Your task to perform on an android device: Search for "energizer triple a" on amazon, select the first entry, and add it to the cart. Image 0: 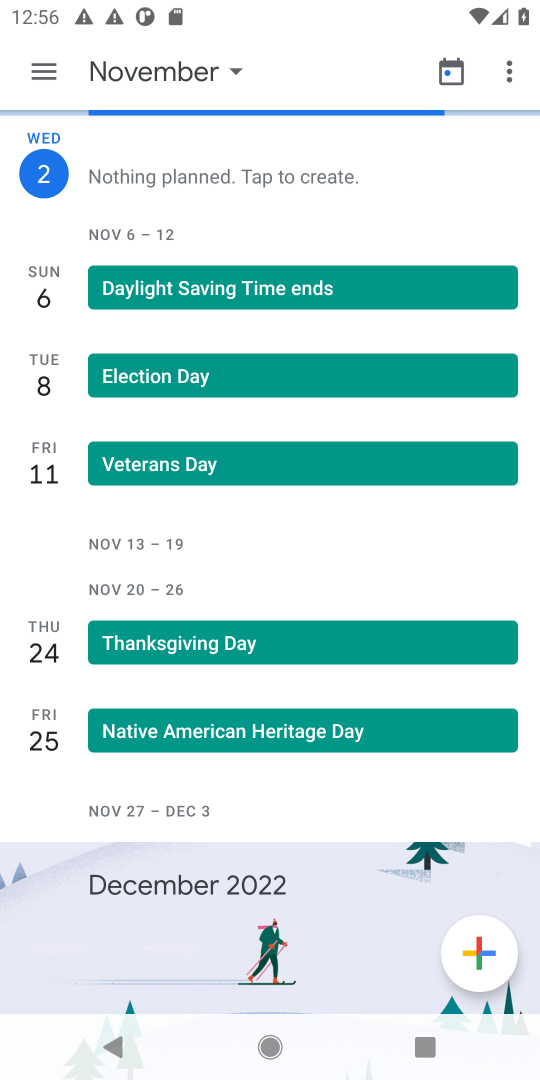
Step 0: press home button
Your task to perform on an android device: Search for "energizer triple a" on amazon, select the first entry, and add it to the cart. Image 1: 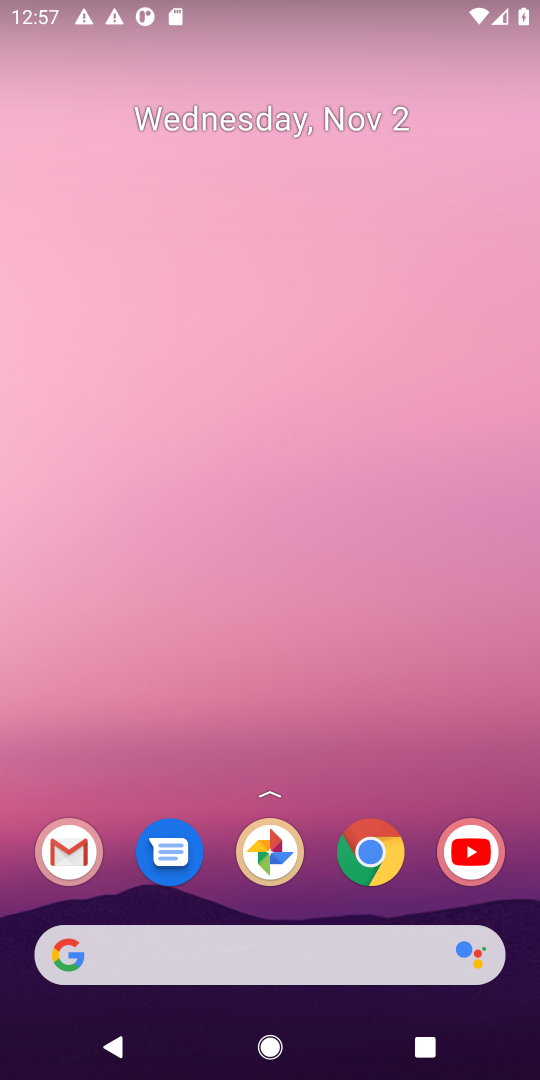
Step 1: click (76, 962)
Your task to perform on an android device: Search for "energizer triple a" on amazon, select the first entry, and add it to the cart. Image 2: 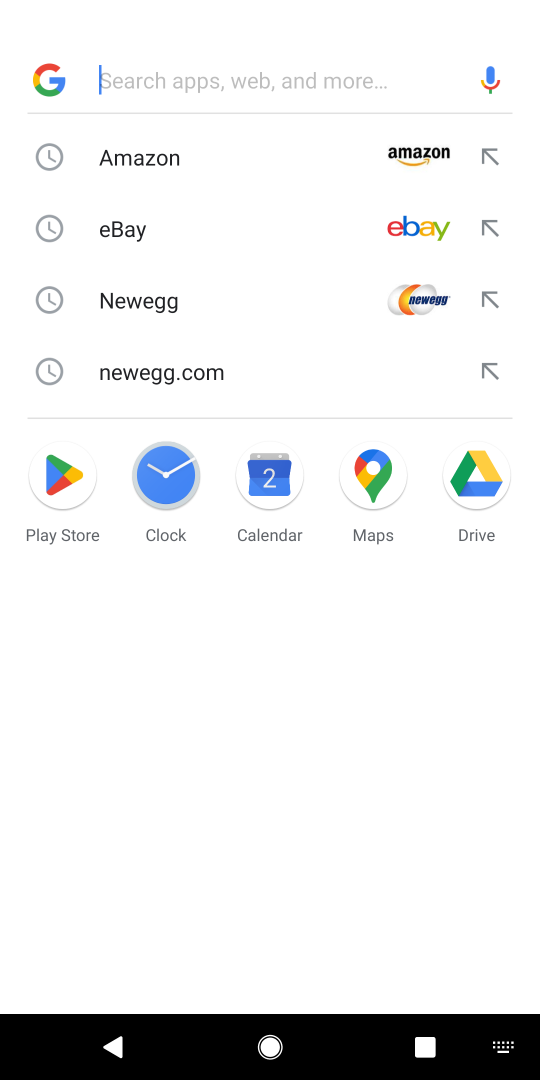
Step 2: click (106, 156)
Your task to perform on an android device: Search for "energizer triple a" on amazon, select the first entry, and add it to the cart. Image 3: 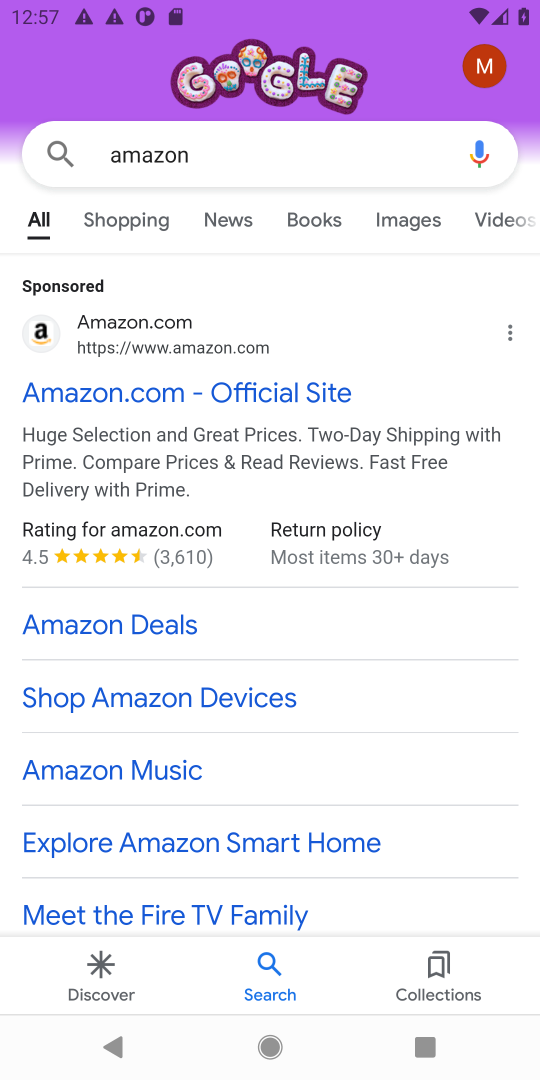
Step 3: click (176, 387)
Your task to perform on an android device: Search for "energizer triple a" on amazon, select the first entry, and add it to the cart. Image 4: 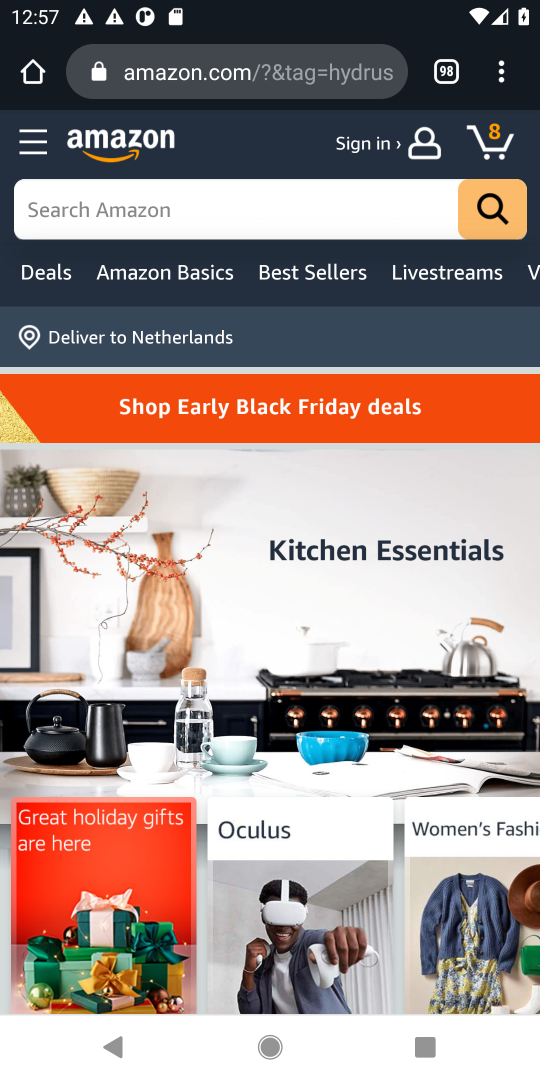
Step 4: type "energizer triple a"
Your task to perform on an android device: Search for "energizer triple a" on amazon, select the first entry, and add it to the cart. Image 5: 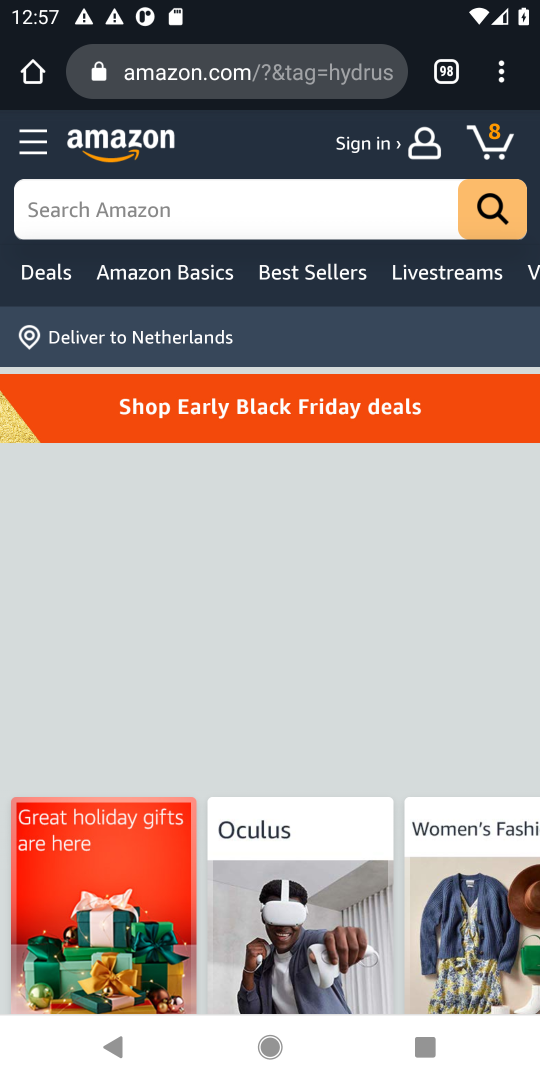
Step 5: click (40, 200)
Your task to perform on an android device: Search for "energizer triple a" on amazon, select the first entry, and add it to the cart. Image 6: 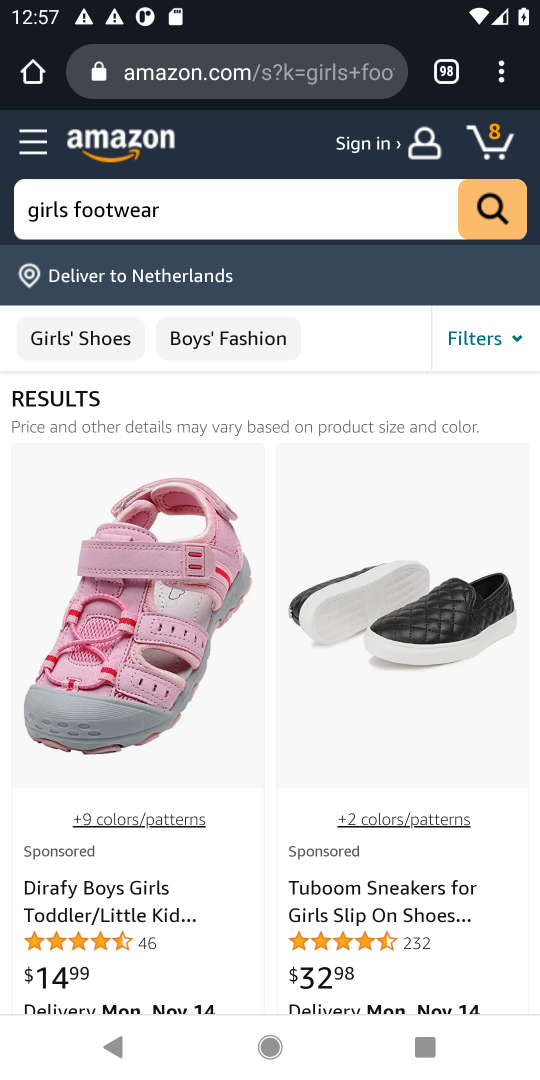
Step 6: click (401, 216)
Your task to perform on an android device: Search for "energizer triple a" on amazon, select the first entry, and add it to the cart. Image 7: 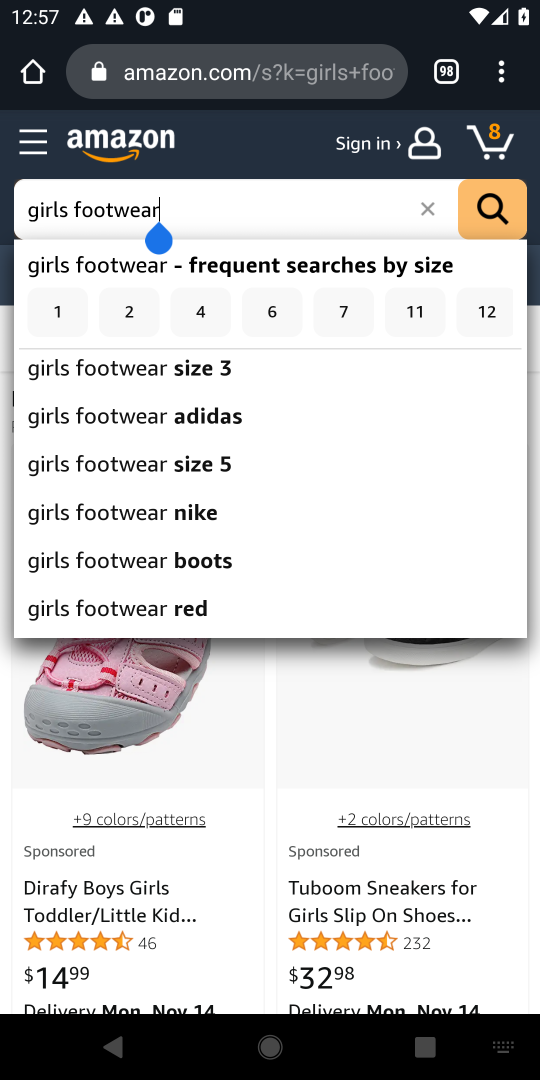
Step 7: drag from (152, 244) to (33, 219)
Your task to perform on an android device: Search for "energizer triple a" on amazon, select the first entry, and add it to the cart. Image 8: 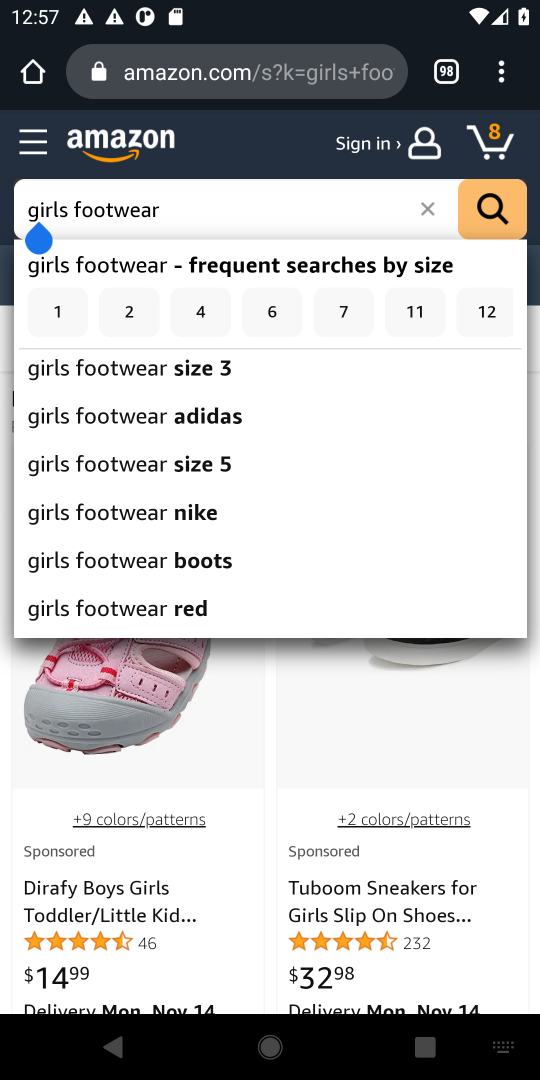
Step 8: click (419, 207)
Your task to perform on an android device: Search for "energizer triple a" on amazon, select the first entry, and add it to the cart. Image 9: 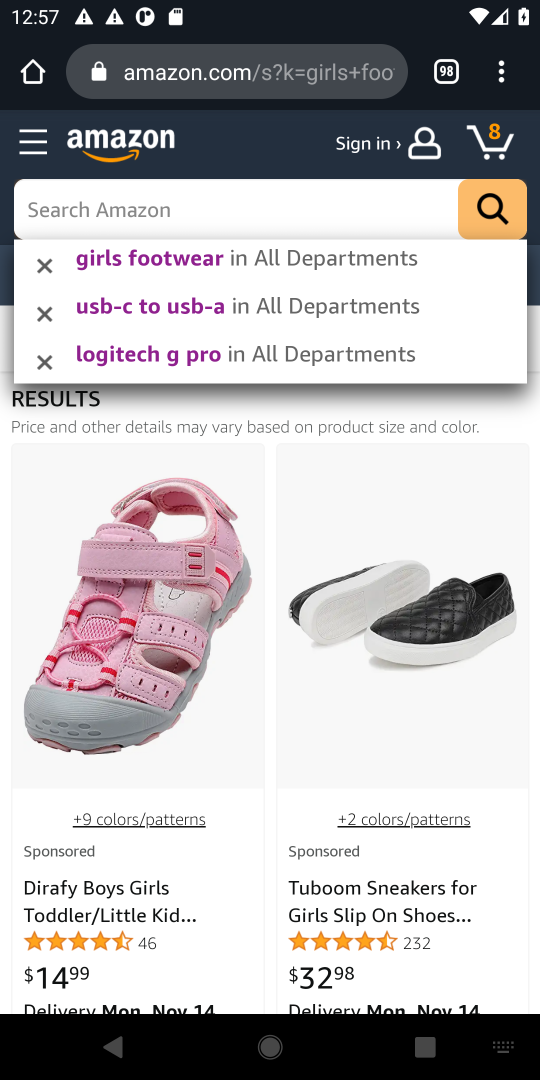
Step 9: type "energizer triple a"
Your task to perform on an android device: Search for "energizer triple a" on amazon, select the first entry, and add it to the cart. Image 10: 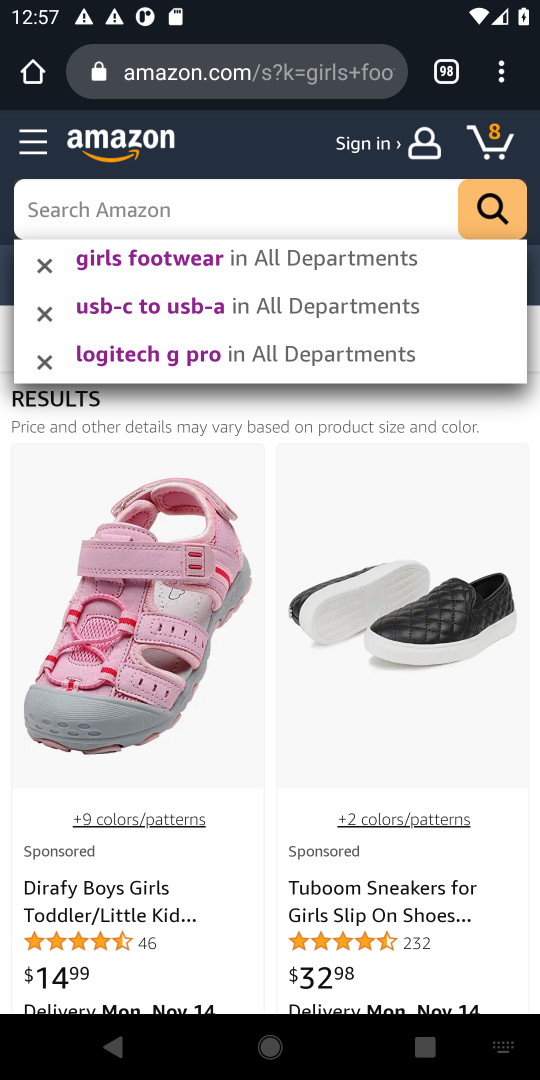
Step 10: click (140, 204)
Your task to perform on an android device: Search for "energizer triple a" on amazon, select the first entry, and add it to the cart. Image 11: 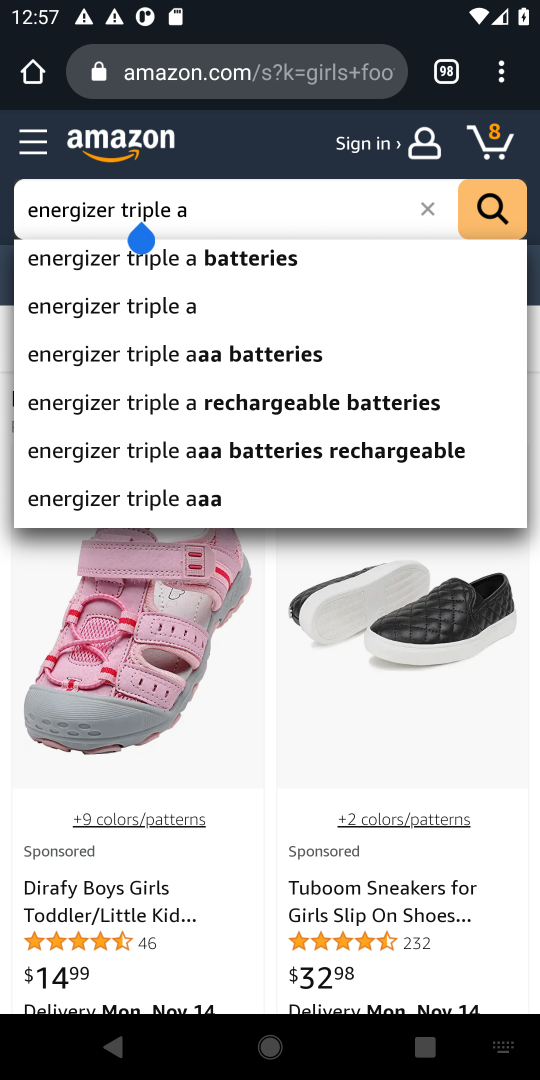
Step 11: press enter
Your task to perform on an android device: Search for "energizer triple a" on amazon, select the first entry, and add it to the cart. Image 12: 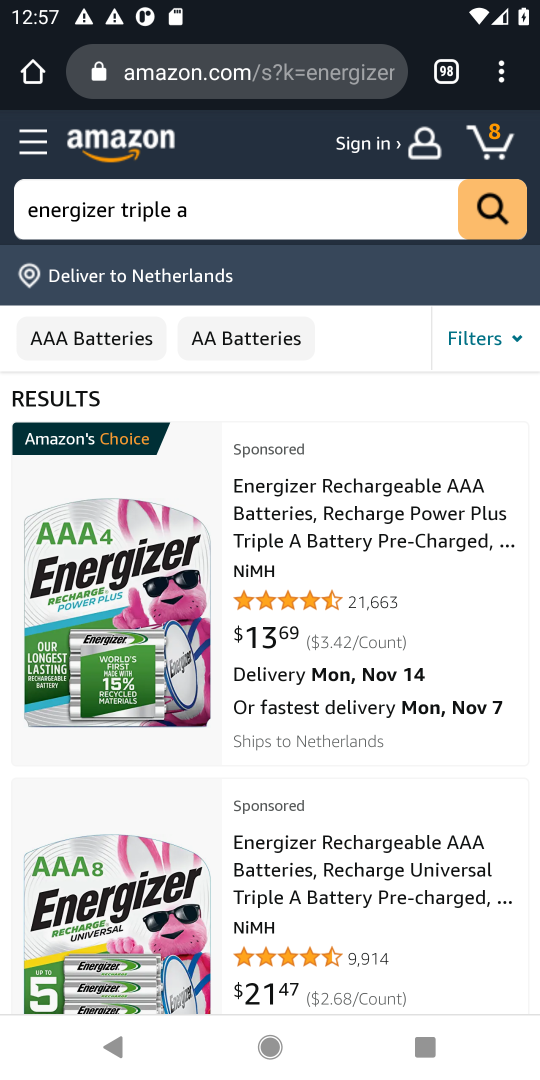
Step 12: click (366, 517)
Your task to perform on an android device: Search for "energizer triple a" on amazon, select the first entry, and add it to the cart. Image 13: 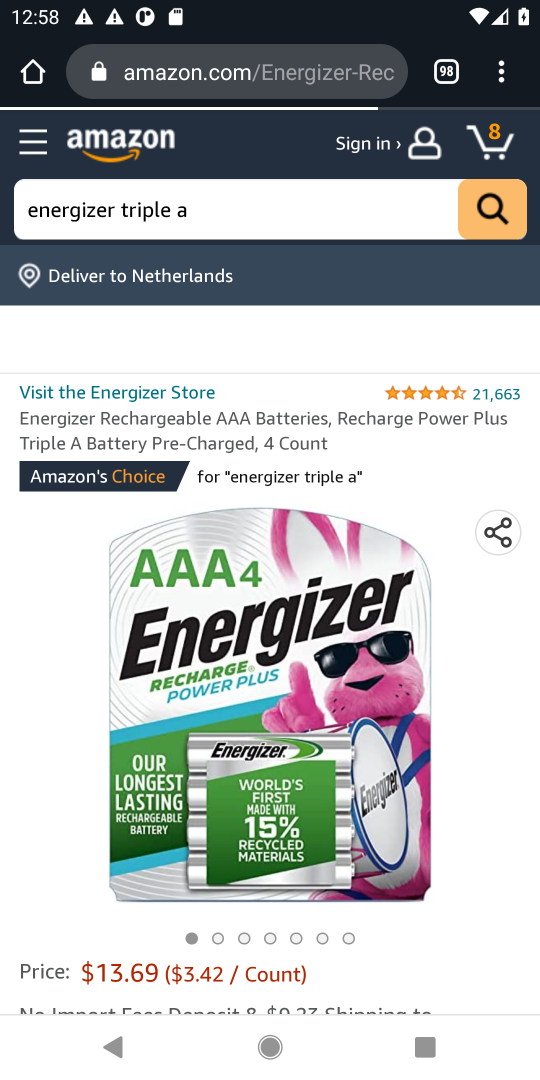
Step 13: drag from (344, 931) to (284, 343)
Your task to perform on an android device: Search for "energizer triple a" on amazon, select the first entry, and add it to the cart. Image 14: 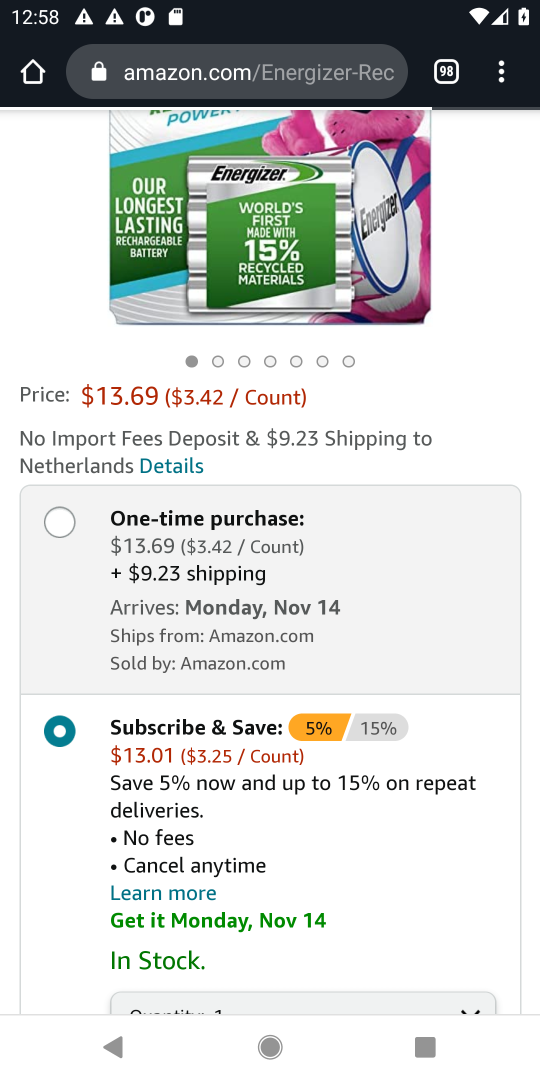
Step 14: click (69, 531)
Your task to perform on an android device: Search for "energizer triple a" on amazon, select the first entry, and add it to the cart. Image 15: 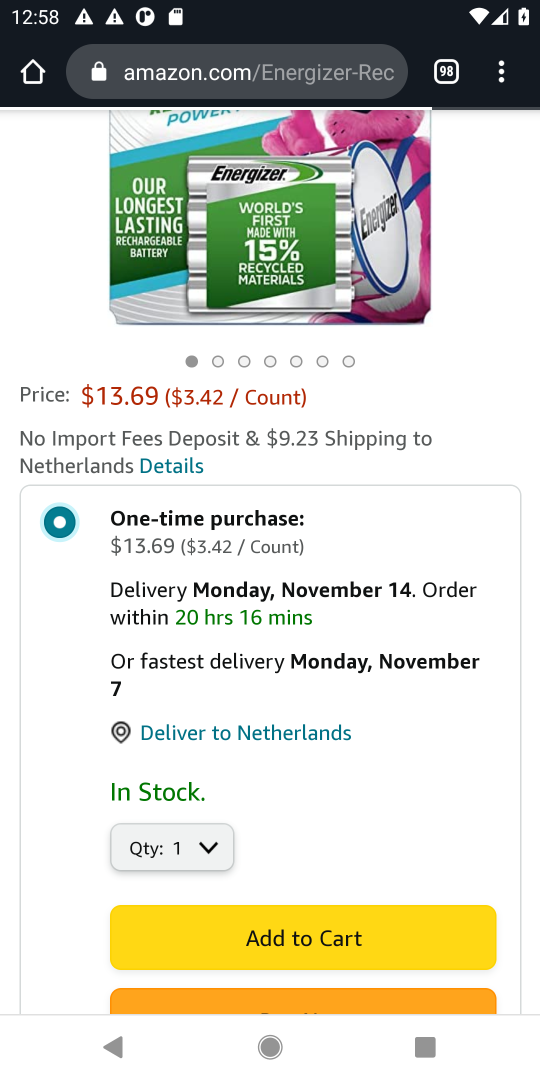
Step 15: click (368, 927)
Your task to perform on an android device: Search for "energizer triple a" on amazon, select the first entry, and add it to the cart. Image 16: 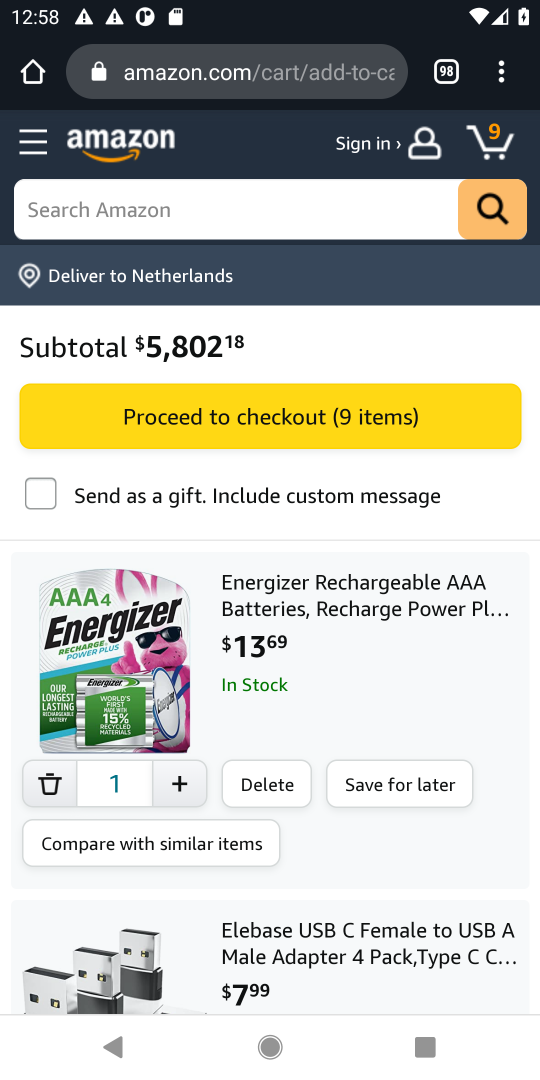
Step 16: task complete